Your task to perform on an android device: change alarm snooze length Image 0: 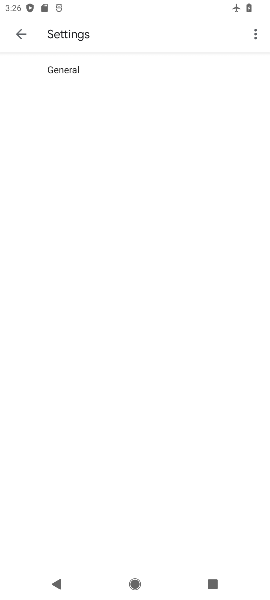
Step 0: press home button
Your task to perform on an android device: change alarm snooze length Image 1: 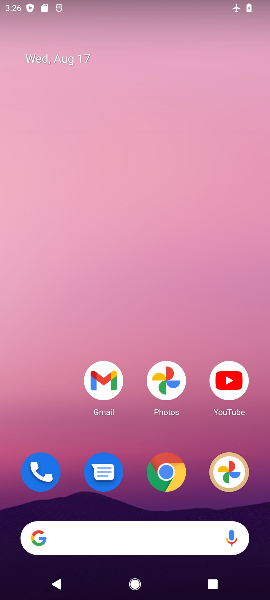
Step 1: drag from (125, 430) to (98, 80)
Your task to perform on an android device: change alarm snooze length Image 2: 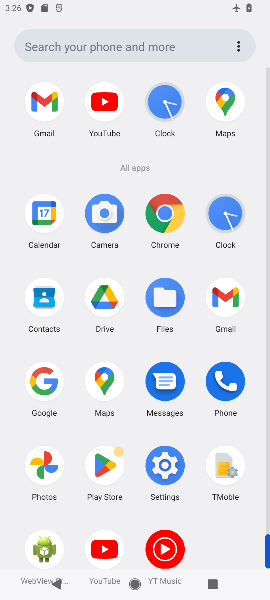
Step 2: click (146, 114)
Your task to perform on an android device: change alarm snooze length Image 3: 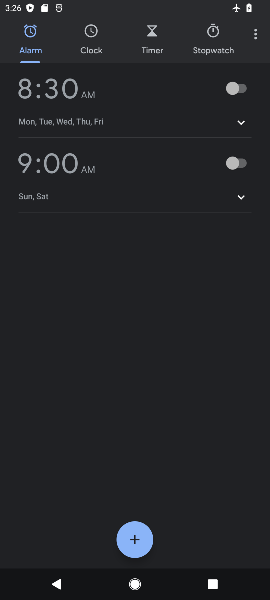
Step 3: click (252, 31)
Your task to perform on an android device: change alarm snooze length Image 4: 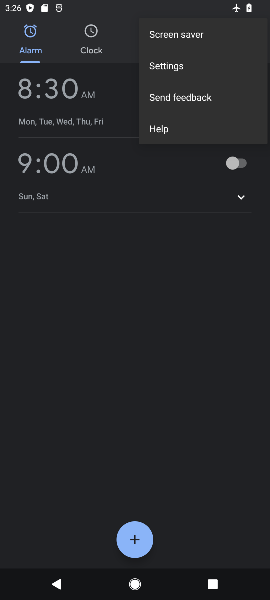
Step 4: click (195, 64)
Your task to perform on an android device: change alarm snooze length Image 5: 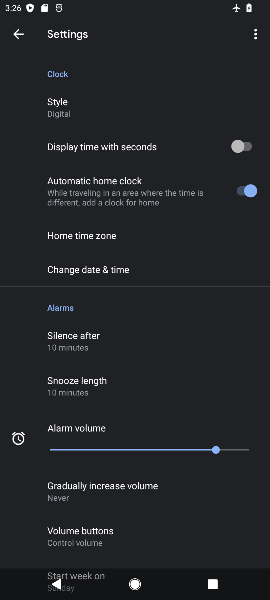
Step 5: drag from (121, 509) to (147, 248)
Your task to perform on an android device: change alarm snooze length Image 6: 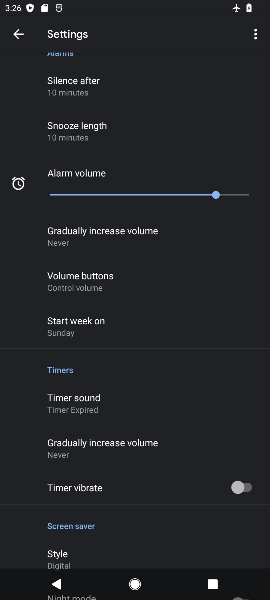
Step 6: drag from (127, 235) to (127, 494)
Your task to perform on an android device: change alarm snooze length Image 7: 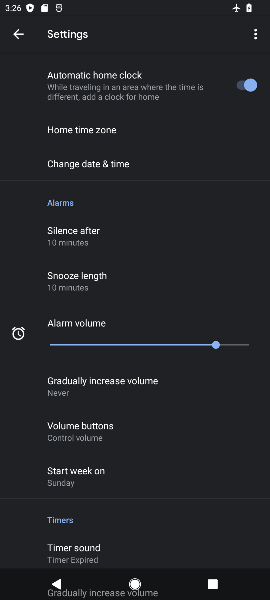
Step 7: drag from (103, 202) to (126, 462)
Your task to perform on an android device: change alarm snooze length Image 8: 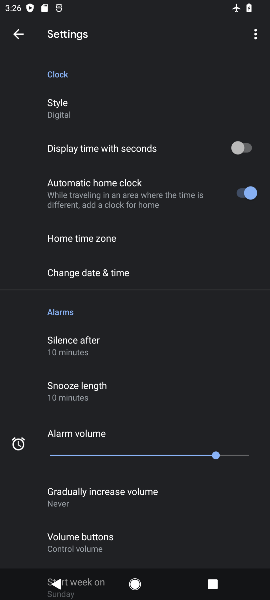
Step 8: click (94, 390)
Your task to perform on an android device: change alarm snooze length Image 9: 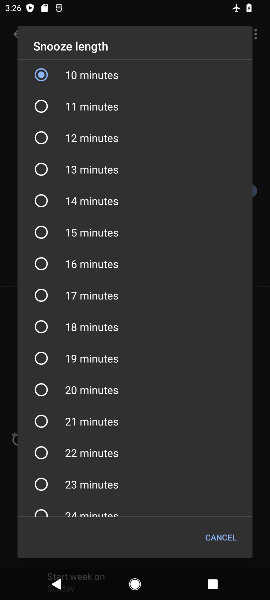
Step 9: click (87, 288)
Your task to perform on an android device: change alarm snooze length Image 10: 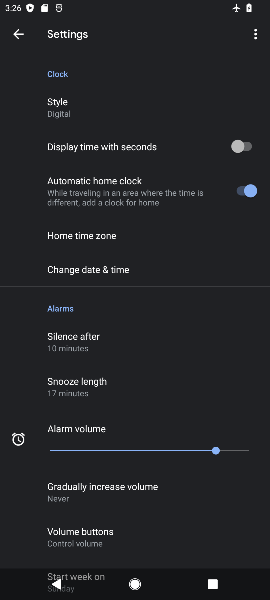
Step 10: task complete